Your task to perform on an android device: delete a single message in the gmail app Image 0: 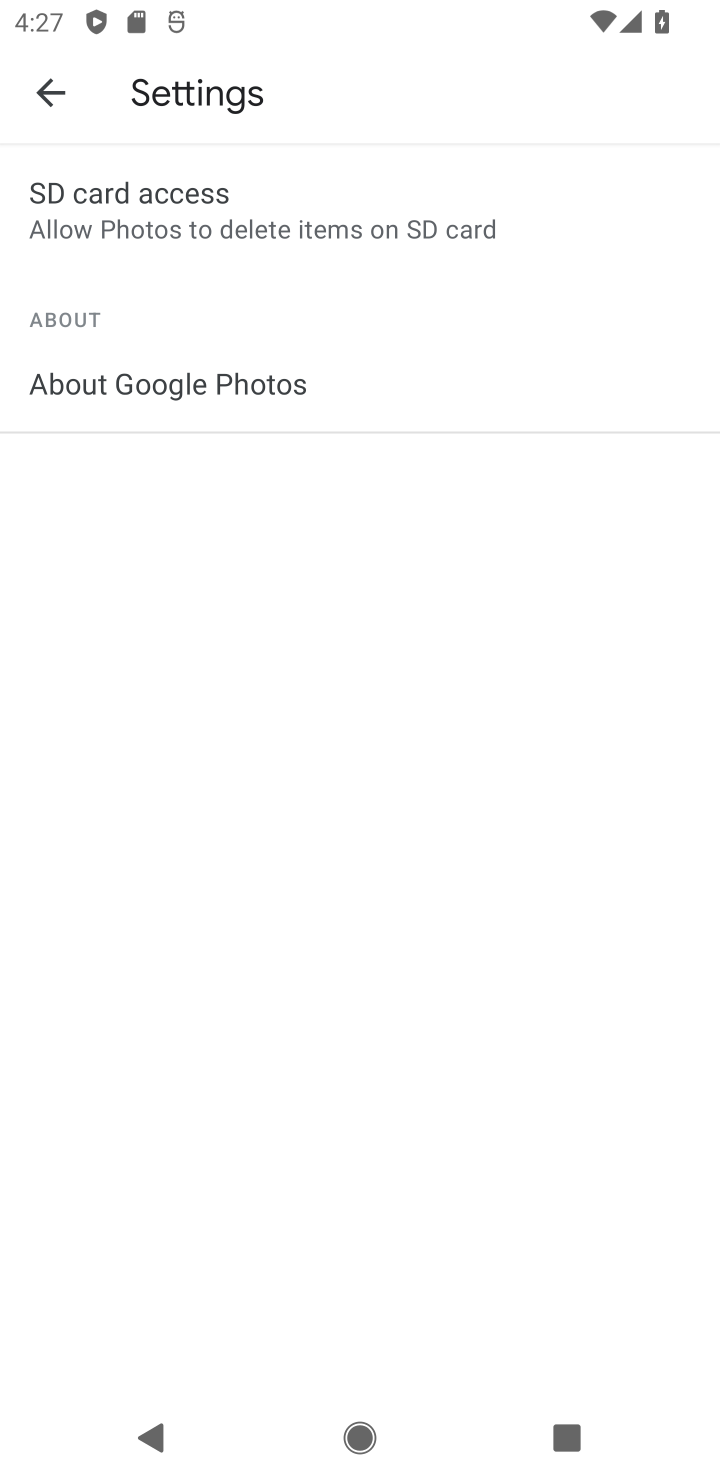
Step 0: press home button
Your task to perform on an android device: delete a single message in the gmail app Image 1: 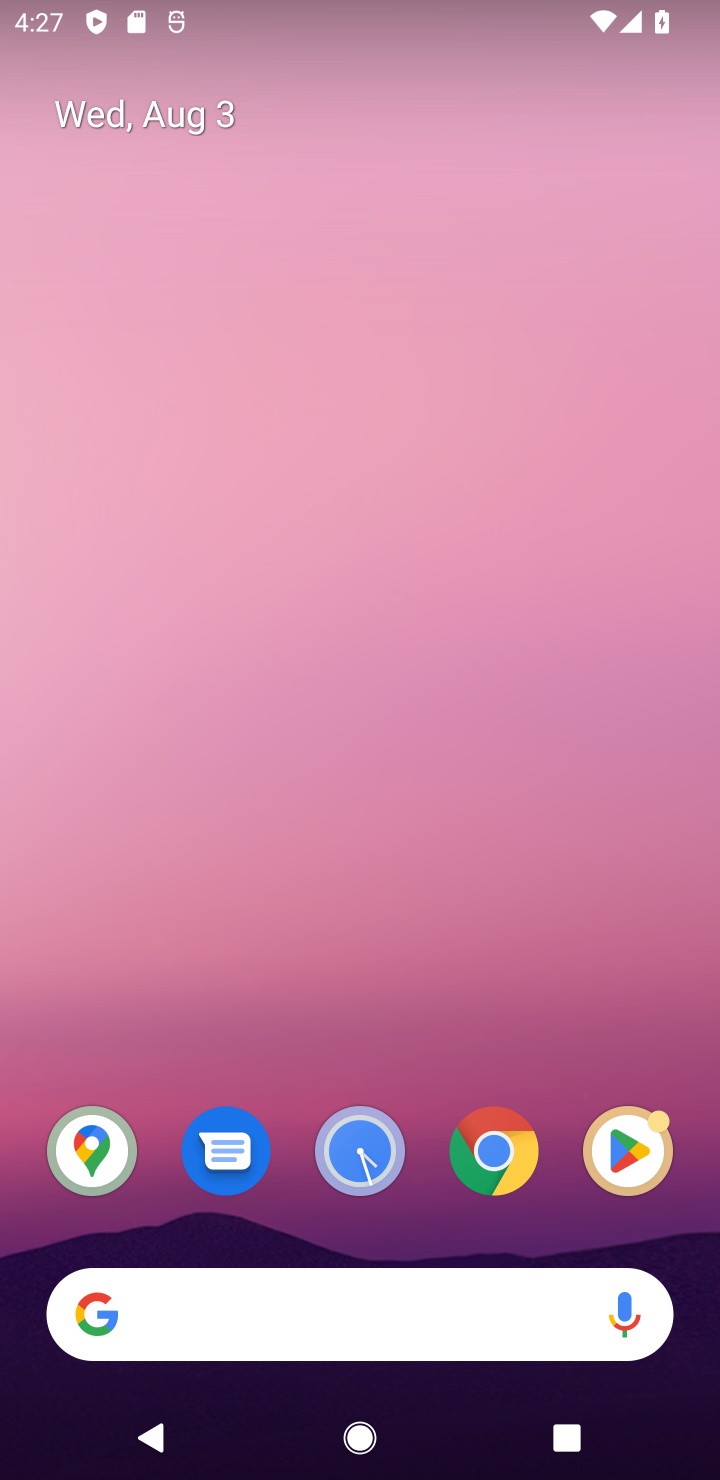
Step 1: drag from (357, 1046) to (306, 281)
Your task to perform on an android device: delete a single message in the gmail app Image 2: 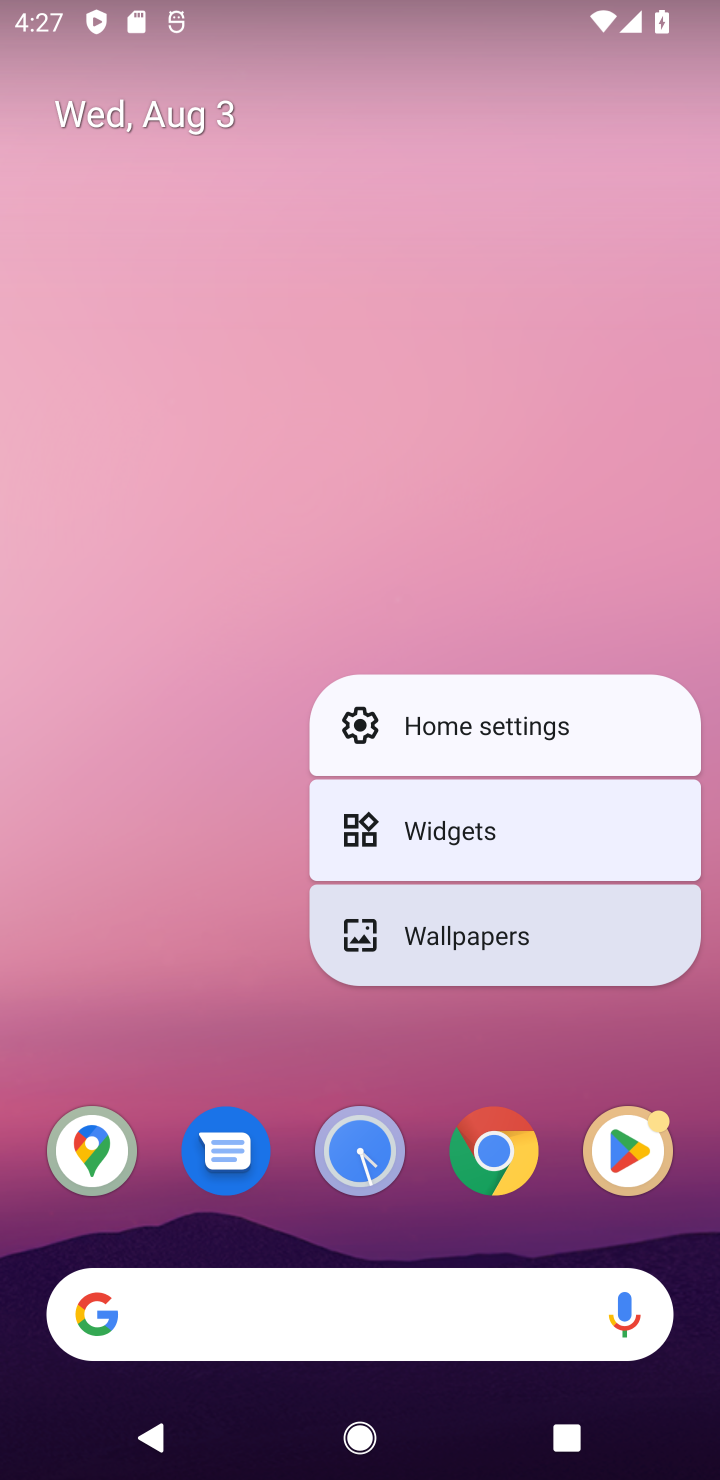
Step 2: click (263, 871)
Your task to perform on an android device: delete a single message in the gmail app Image 3: 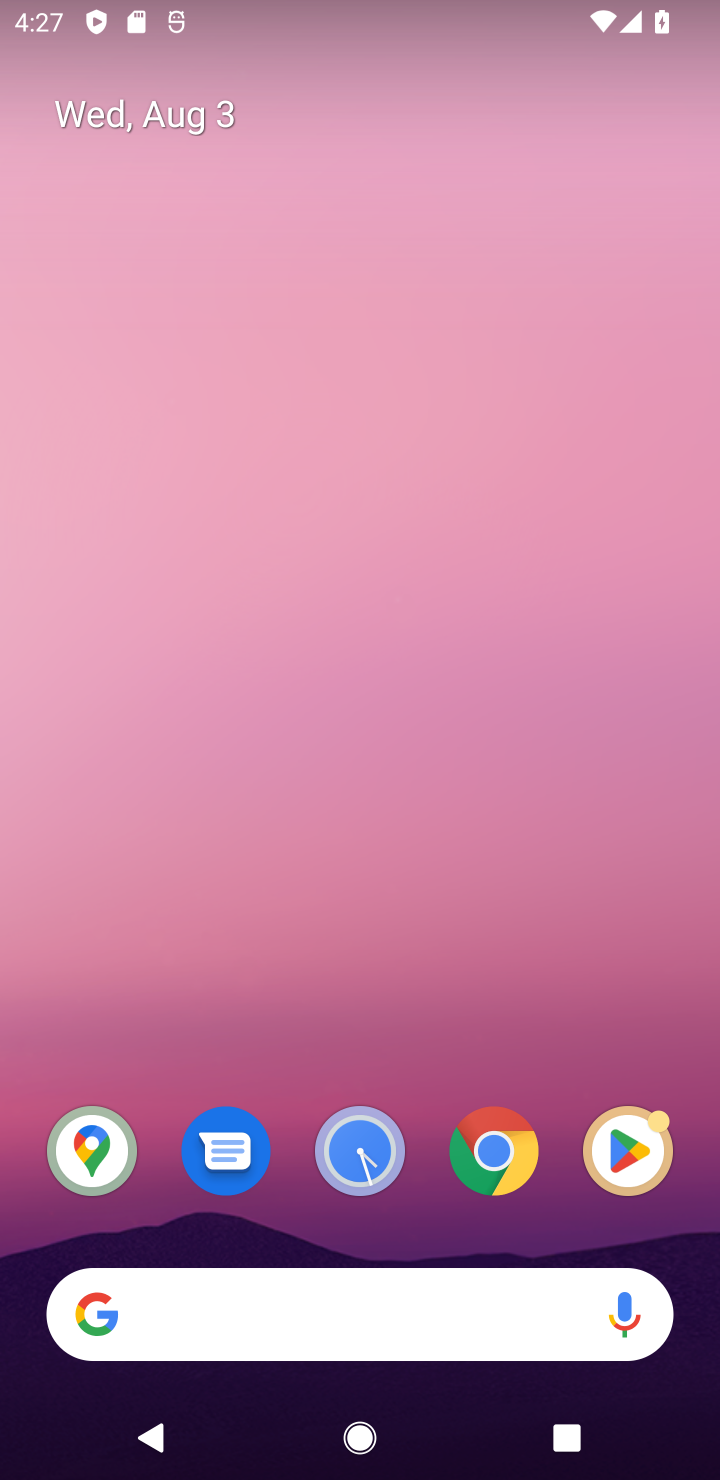
Step 3: drag from (304, 1106) to (271, 187)
Your task to perform on an android device: delete a single message in the gmail app Image 4: 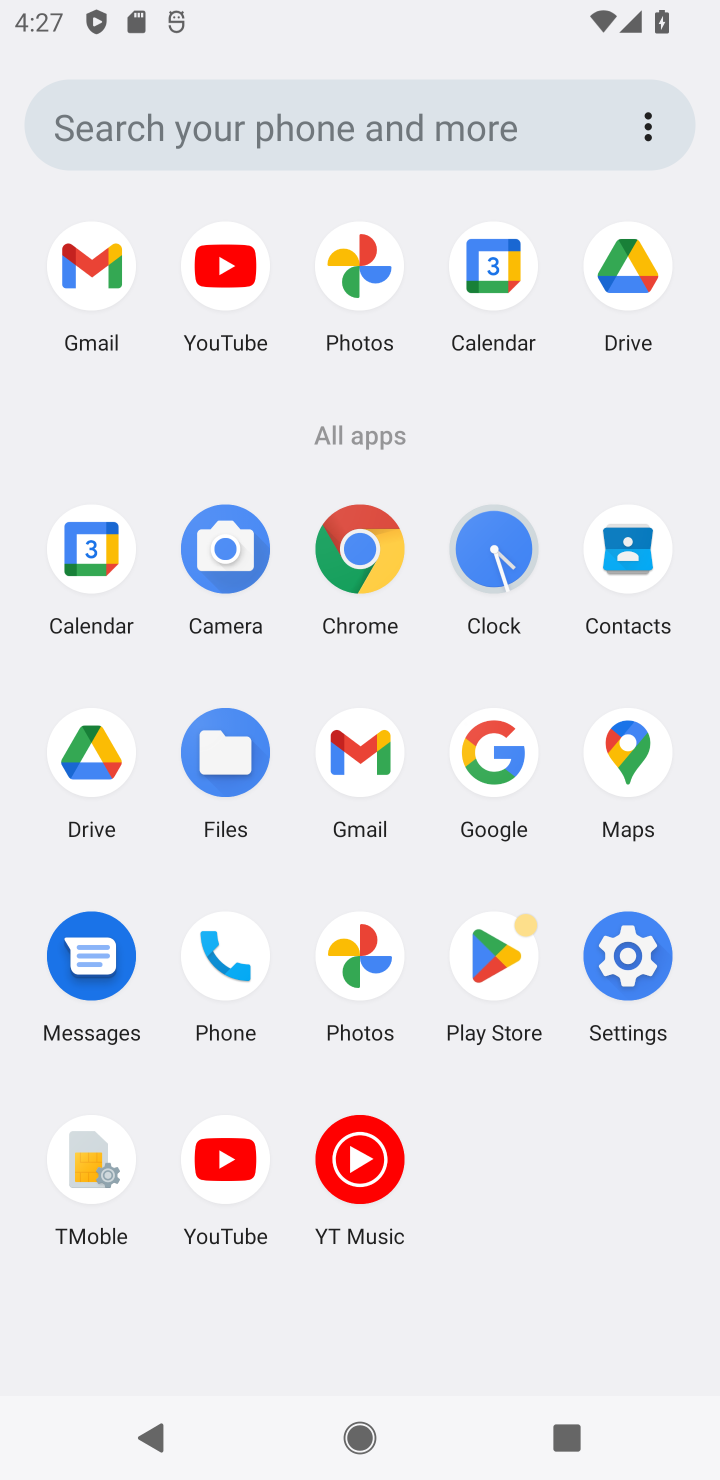
Step 4: click (108, 272)
Your task to perform on an android device: delete a single message in the gmail app Image 5: 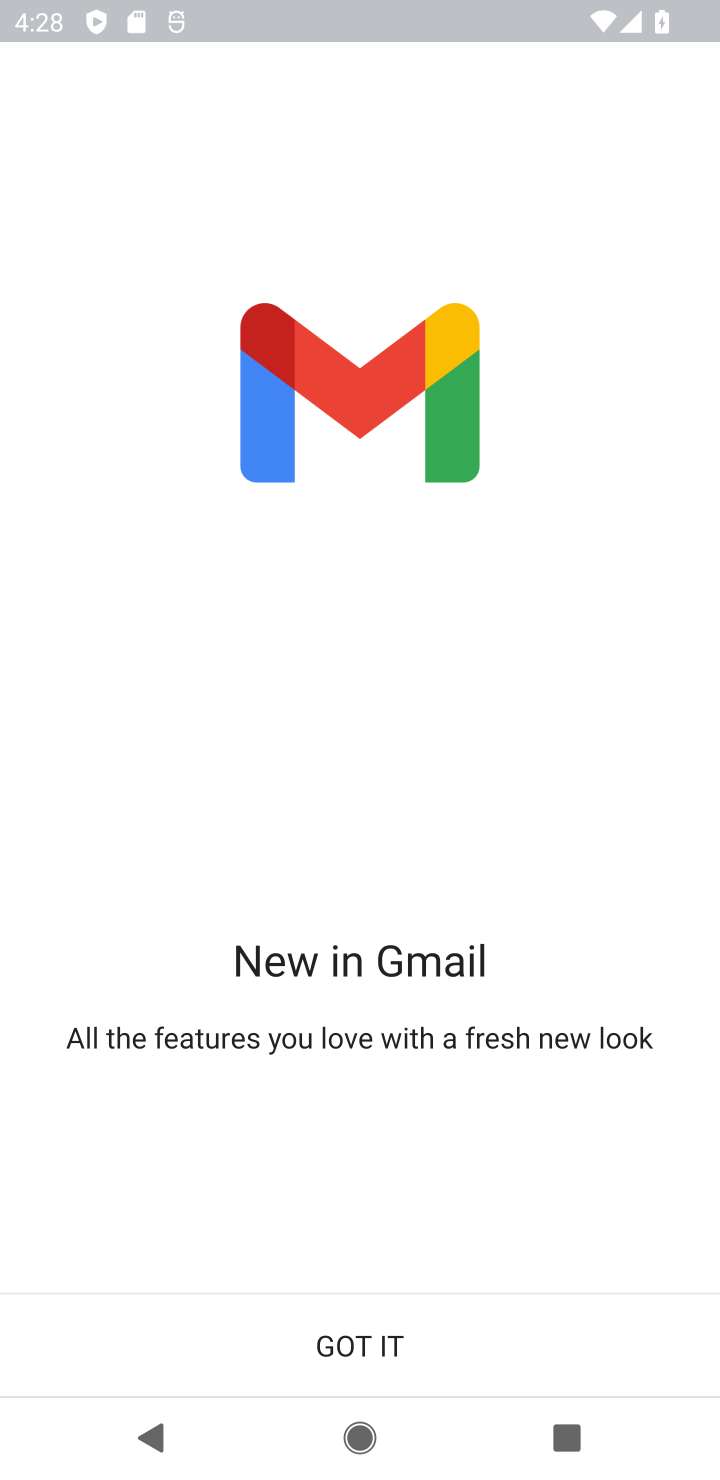
Step 5: click (413, 1374)
Your task to perform on an android device: delete a single message in the gmail app Image 6: 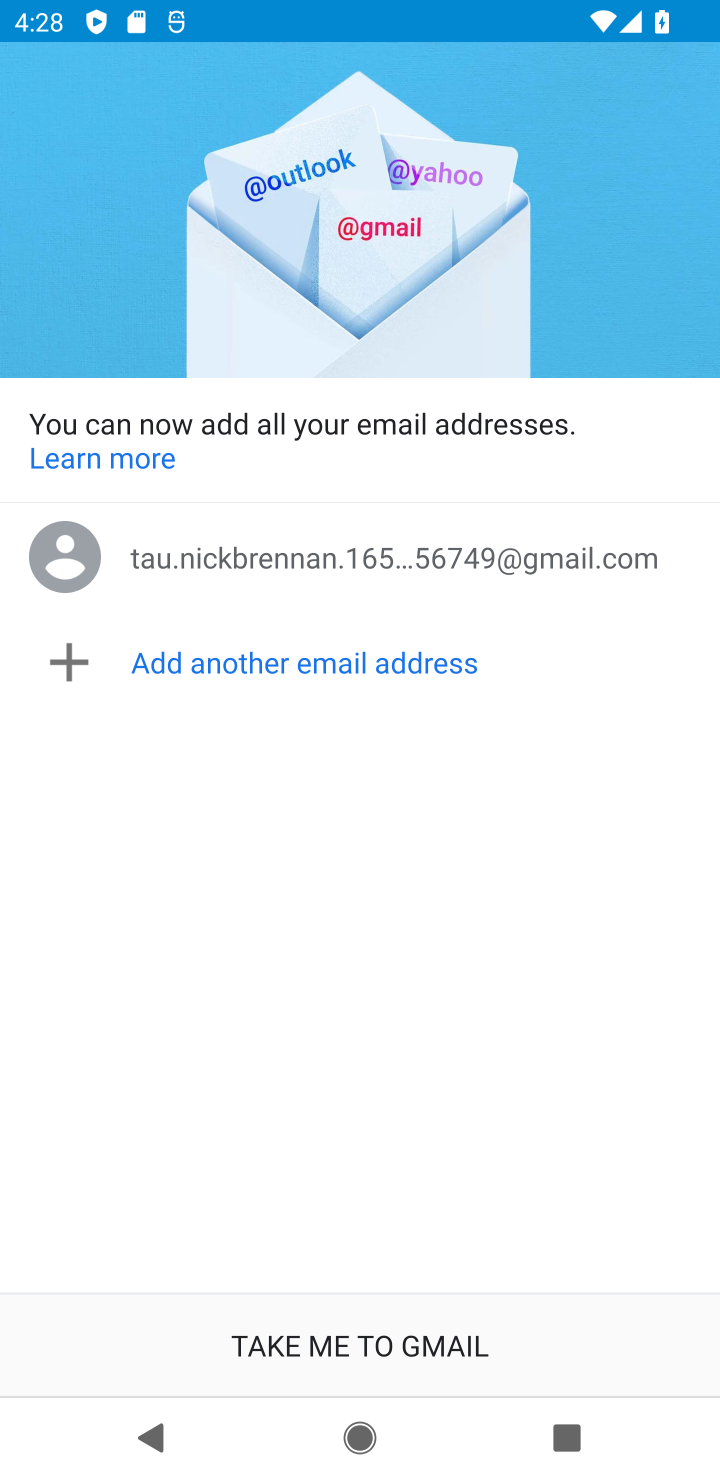
Step 6: click (412, 1366)
Your task to perform on an android device: delete a single message in the gmail app Image 7: 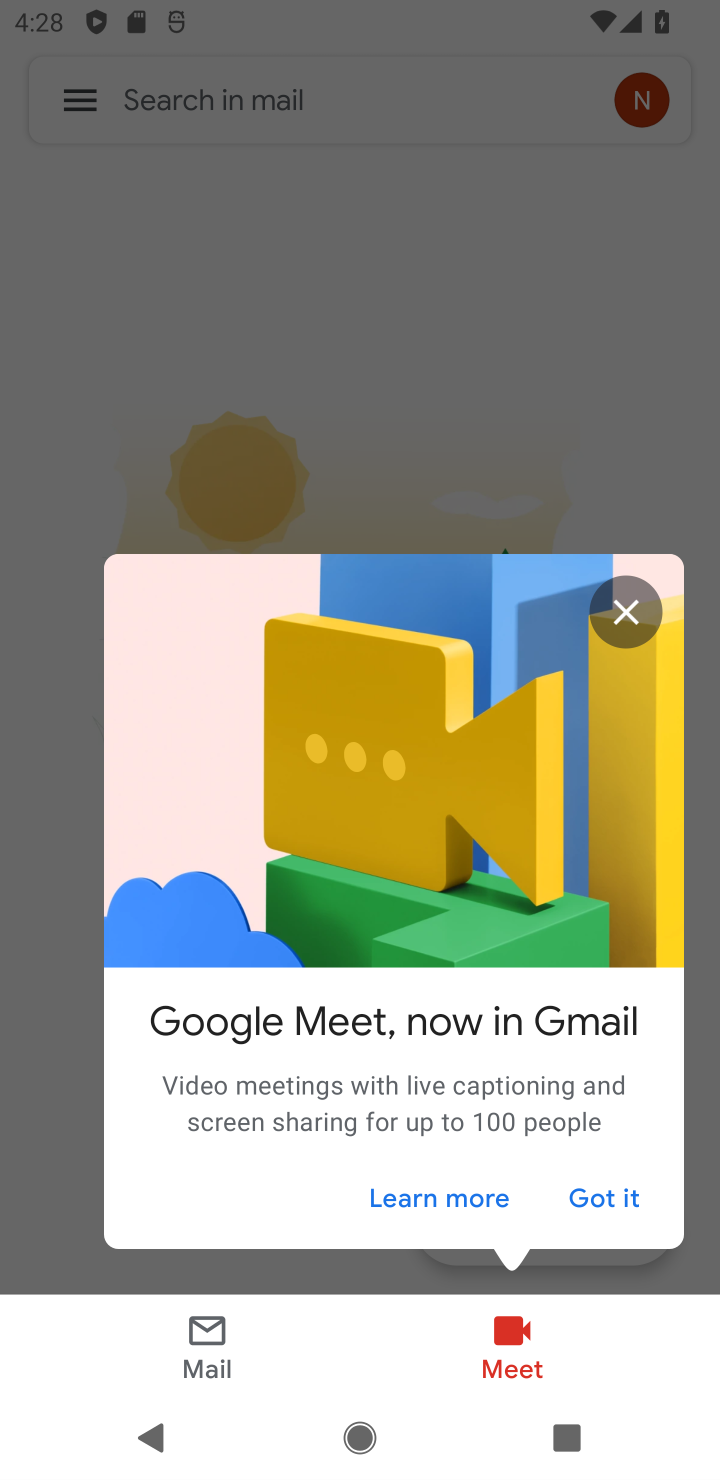
Step 7: click (631, 597)
Your task to perform on an android device: delete a single message in the gmail app Image 8: 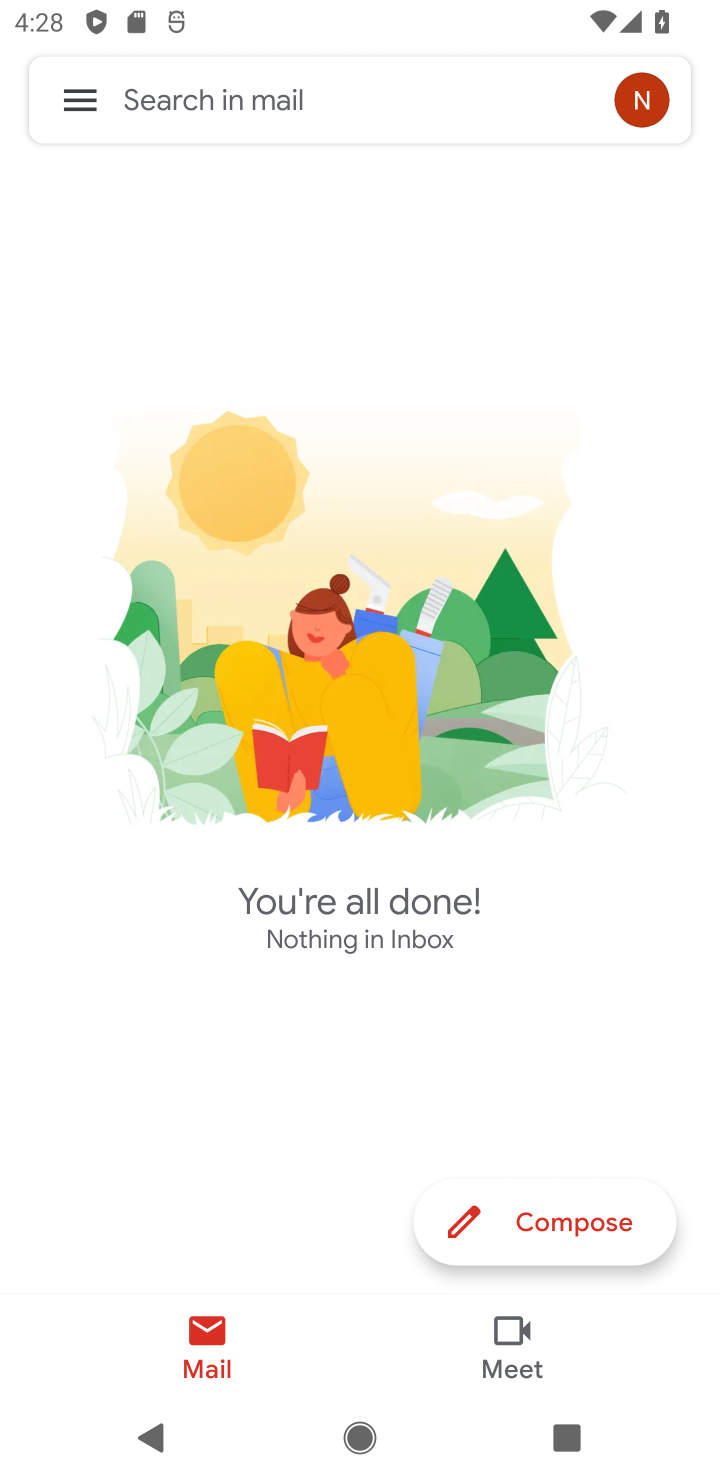
Step 8: click (82, 126)
Your task to perform on an android device: delete a single message in the gmail app Image 9: 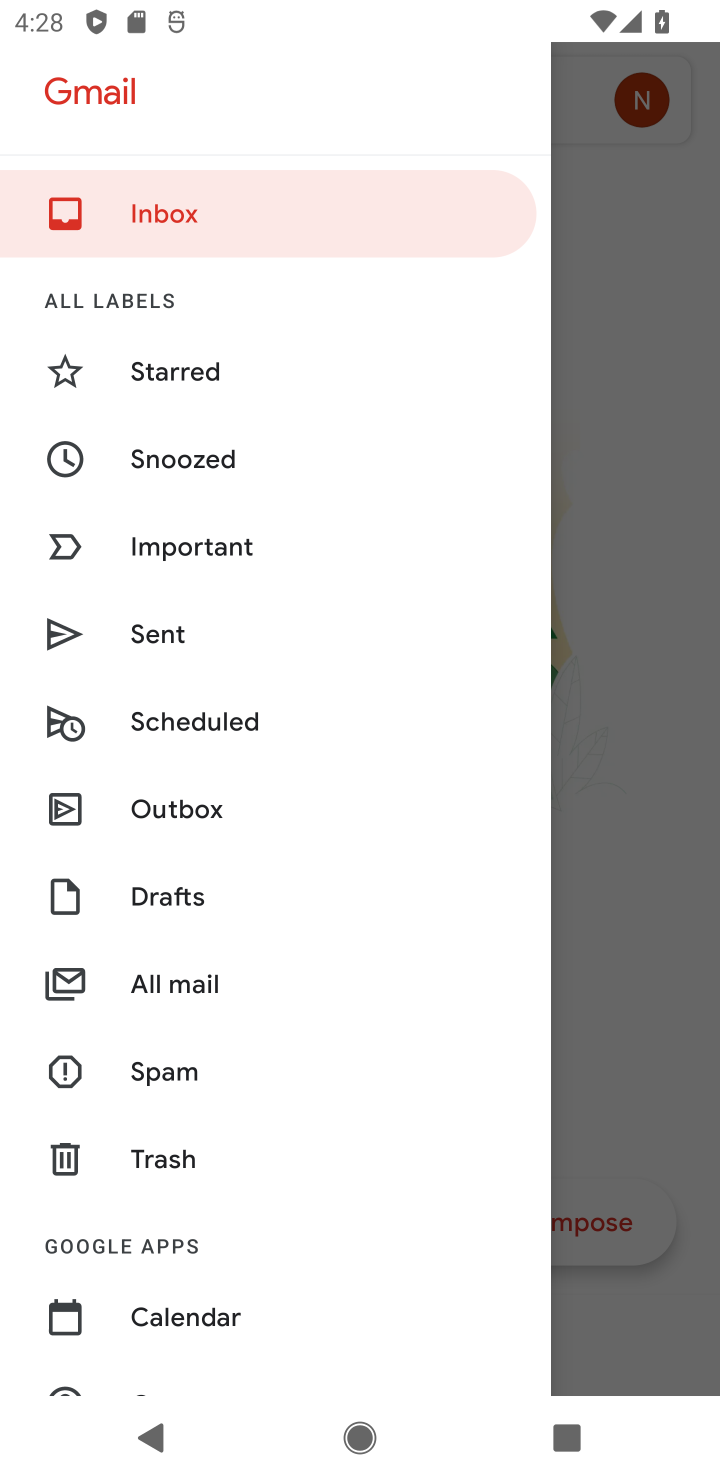
Step 9: click (225, 996)
Your task to perform on an android device: delete a single message in the gmail app Image 10: 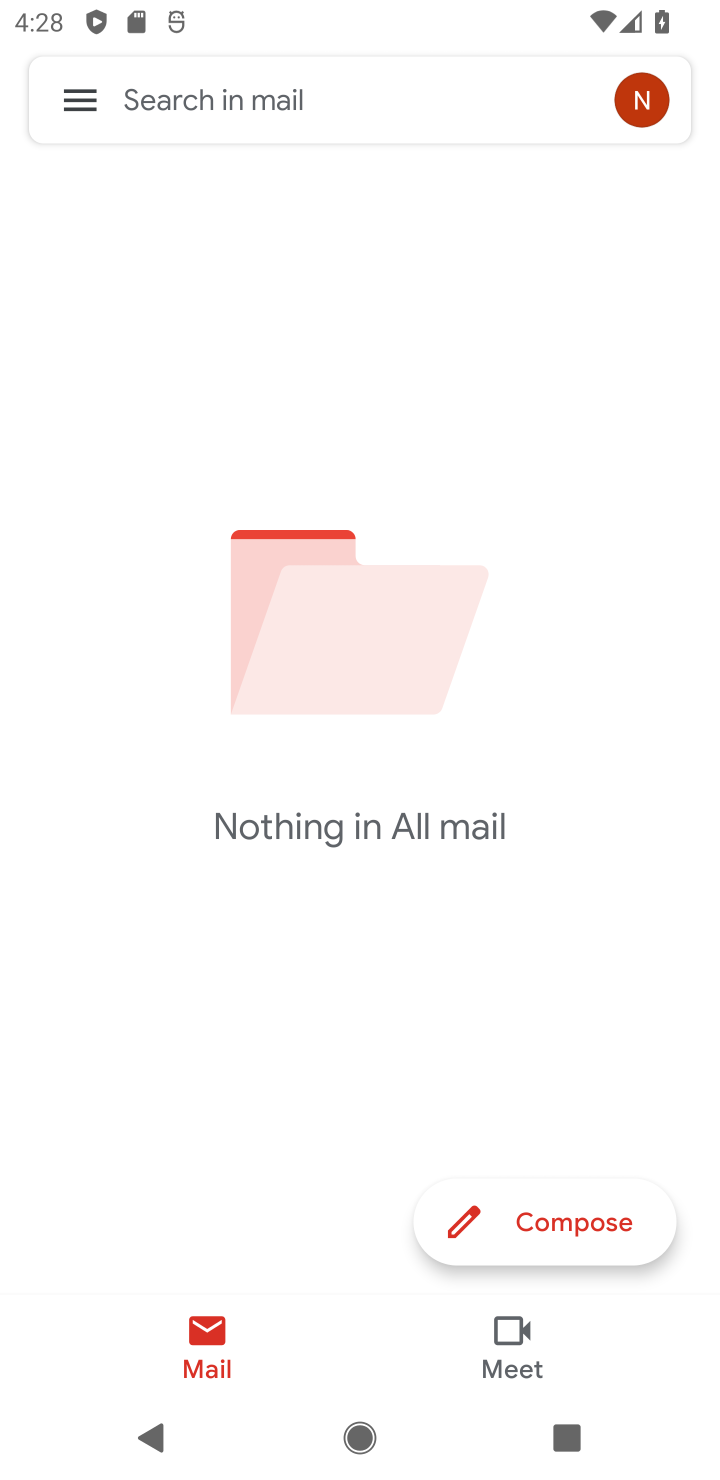
Step 10: task complete